Your task to perform on an android device: Set an alarm for 2pm Image 0: 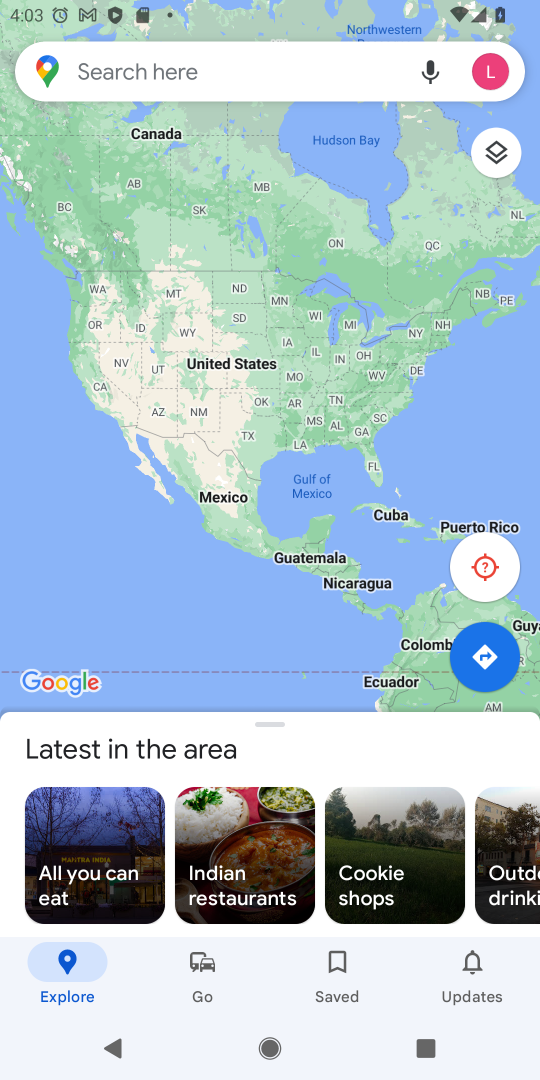
Step 0: press home button
Your task to perform on an android device: Set an alarm for 2pm Image 1: 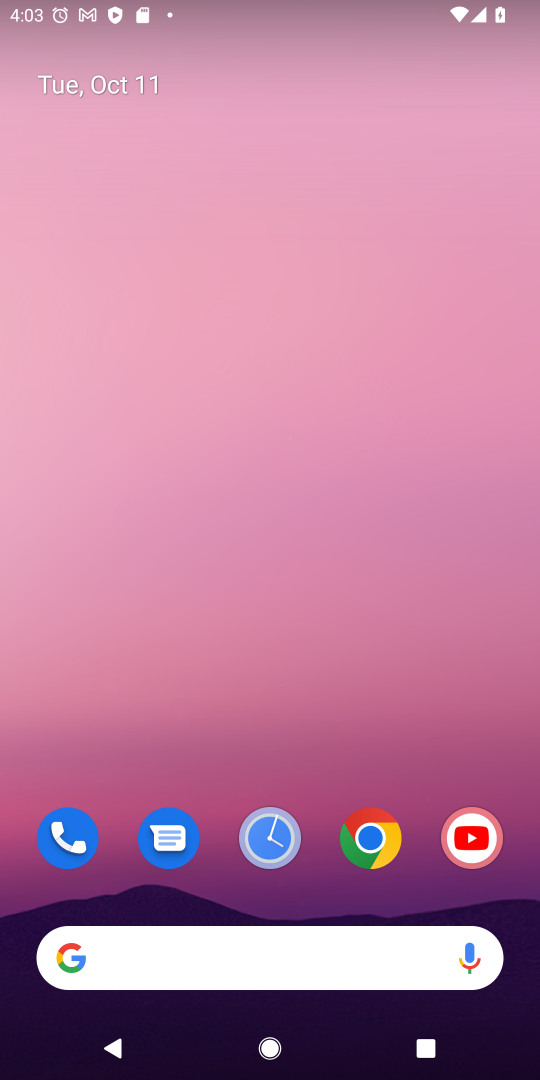
Step 1: click (253, 867)
Your task to perform on an android device: Set an alarm for 2pm Image 2: 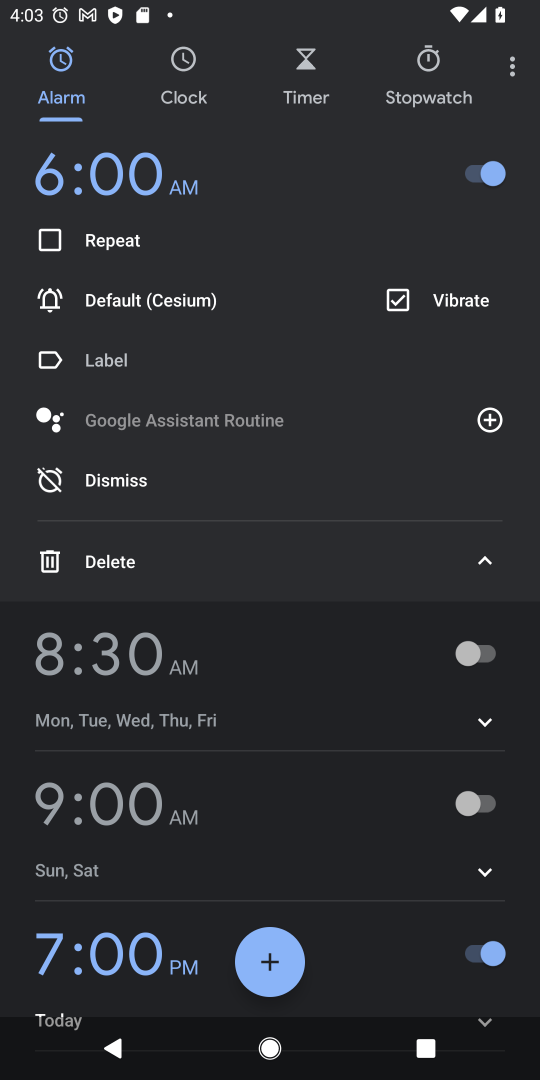
Step 2: click (111, 167)
Your task to perform on an android device: Set an alarm for 2pm Image 3: 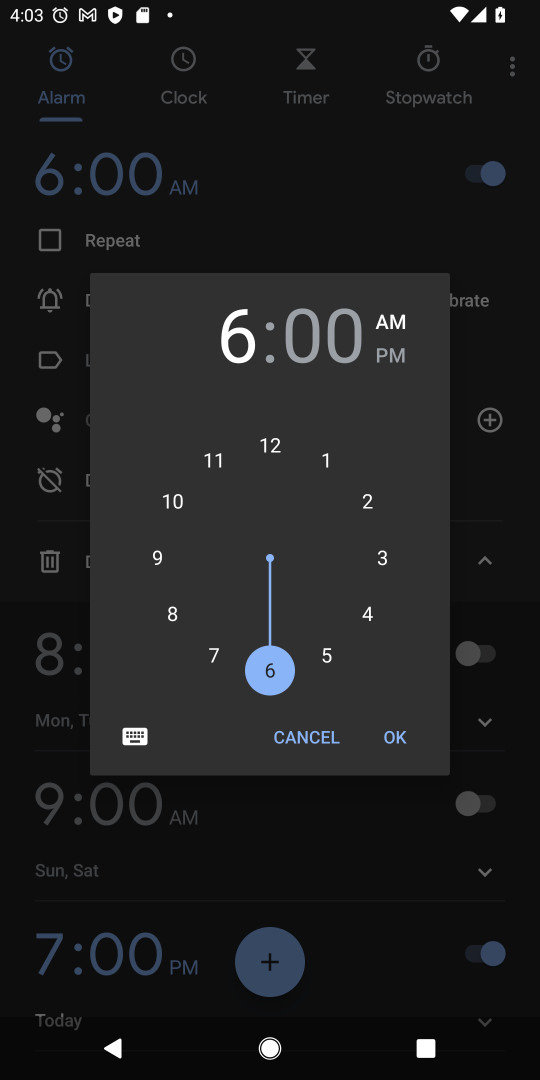
Step 3: click (365, 495)
Your task to perform on an android device: Set an alarm for 2pm Image 4: 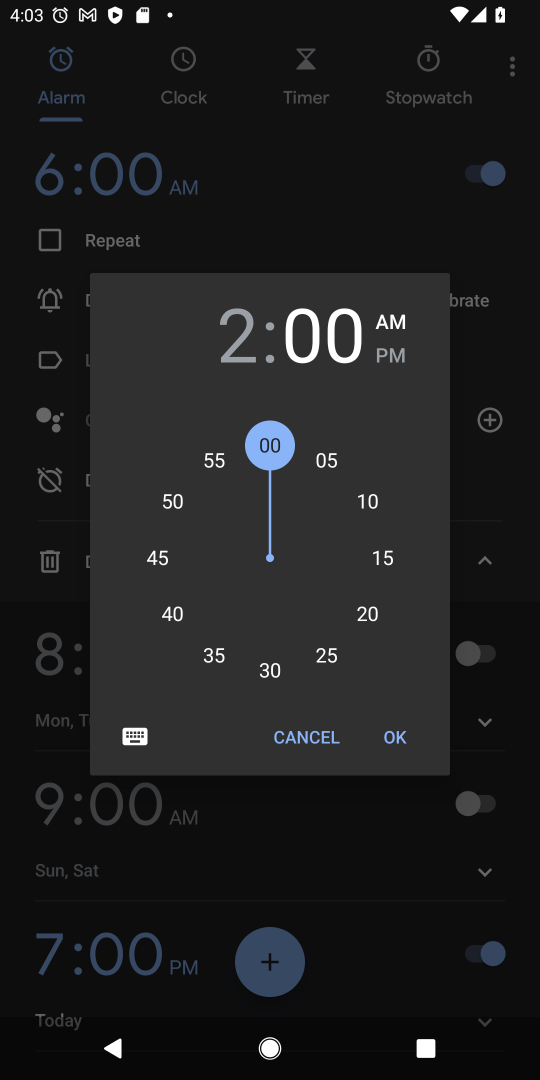
Step 4: click (404, 357)
Your task to perform on an android device: Set an alarm for 2pm Image 5: 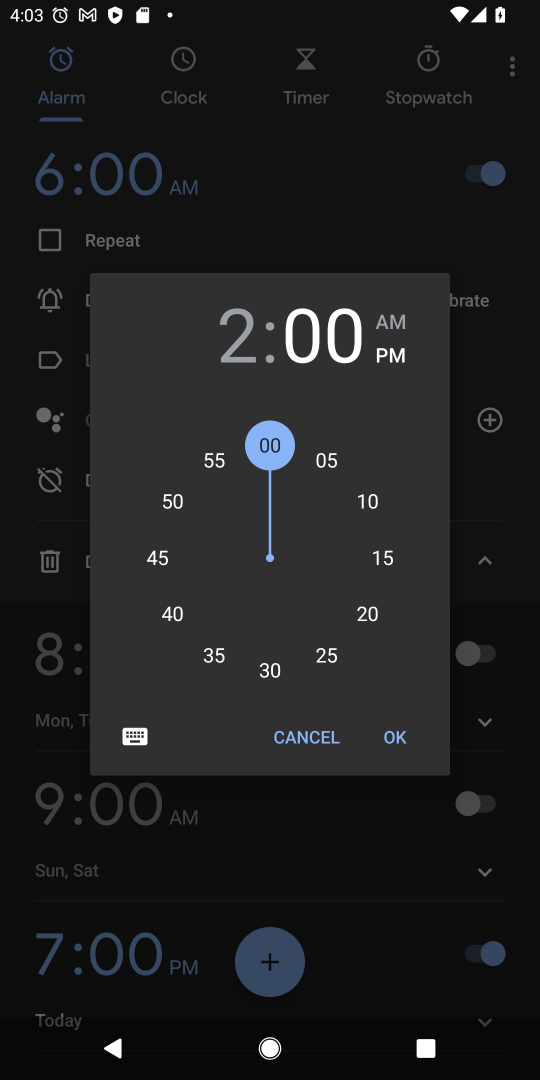
Step 5: click (396, 734)
Your task to perform on an android device: Set an alarm for 2pm Image 6: 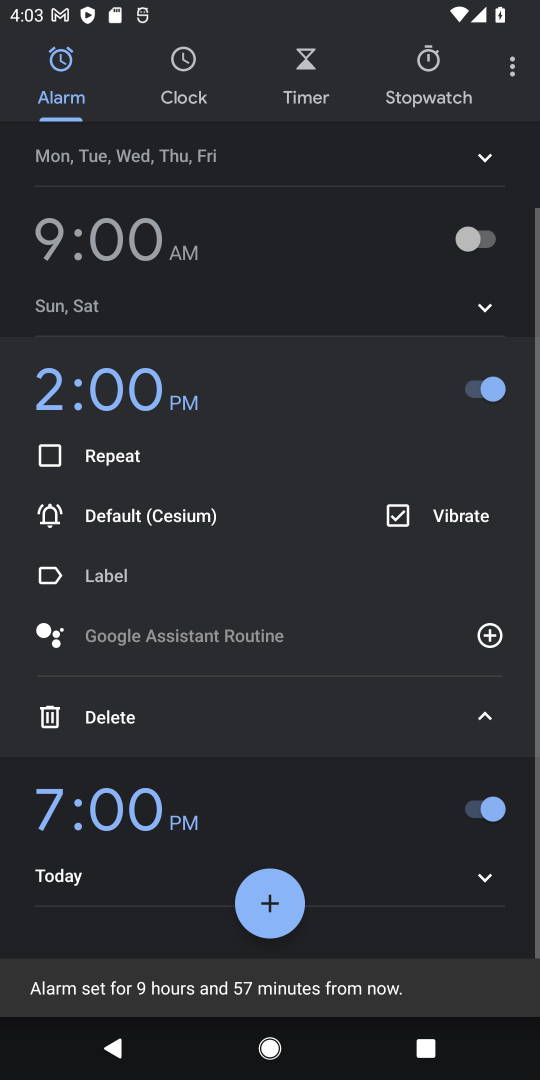
Step 6: task complete